Your task to perform on an android device: Open Google Chrome and open the bookmarks view Image 0: 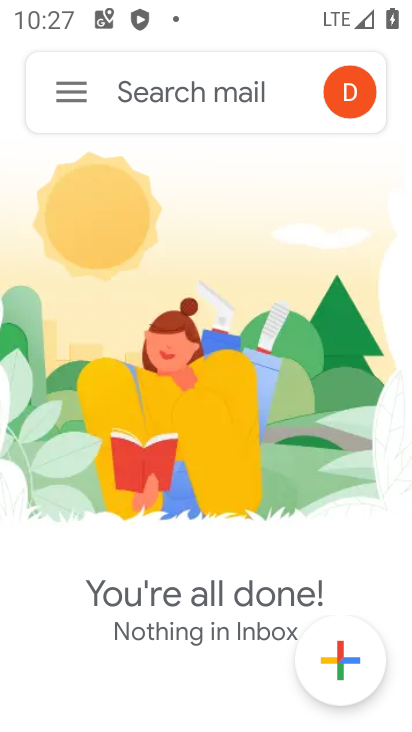
Step 0: press home button
Your task to perform on an android device: Open Google Chrome and open the bookmarks view Image 1: 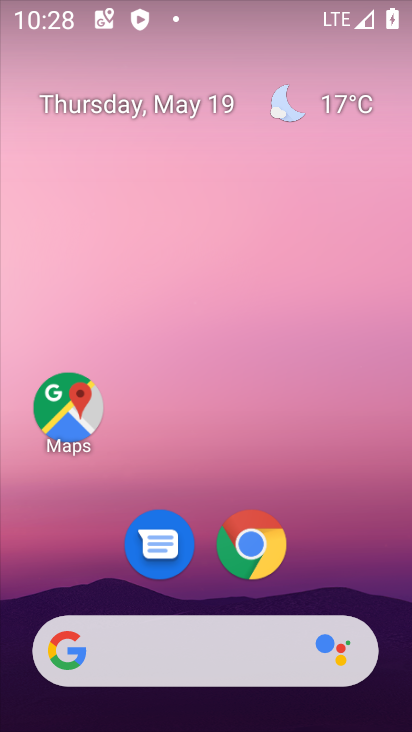
Step 1: click (264, 542)
Your task to perform on an android device: Open Google Chrome and open the bookmarks view Image 2: 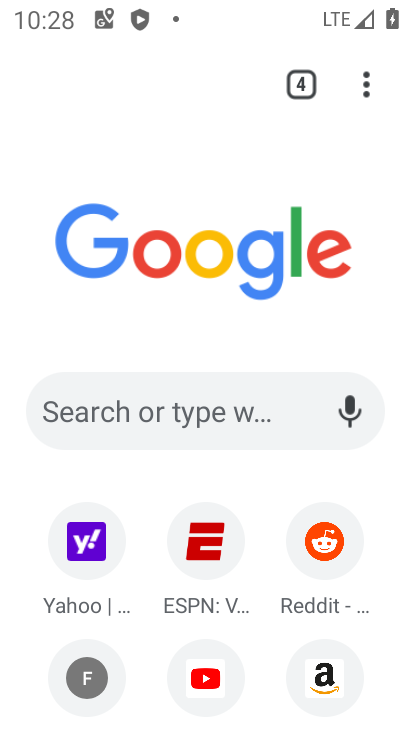
Step 2: click (374, 85)
Your task to perform on an android device: Open Google Chrome and open the bookmarks view Image 3: 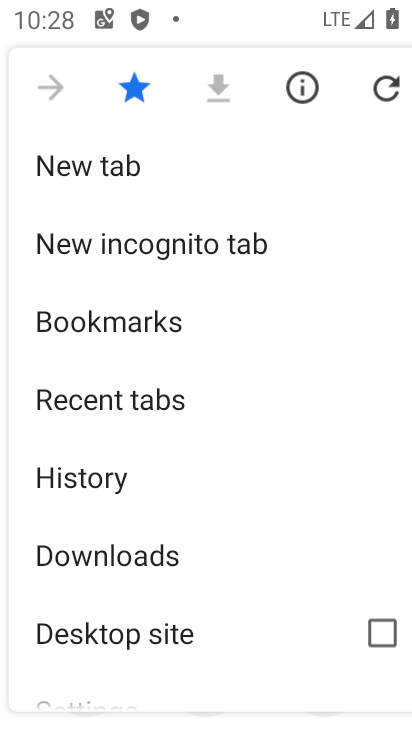
Step 3: click (136, 331)
Your task to perform on an android device: Open Google Chrome and open the bookmarks view Image 4: 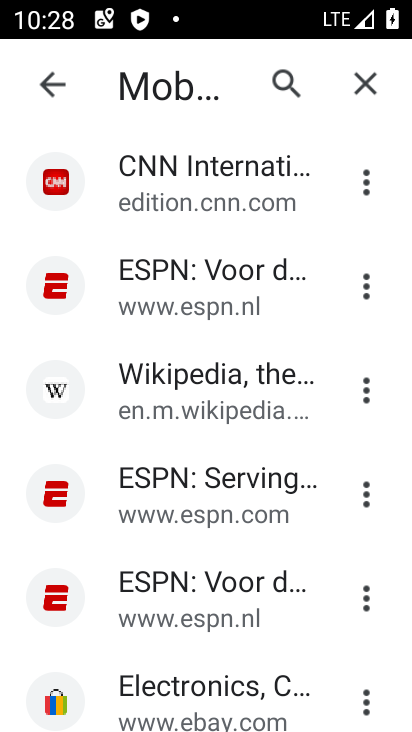
Step 4: task complete